Your task to perform on an android device: move a message to another label in the gmail app Image 0: 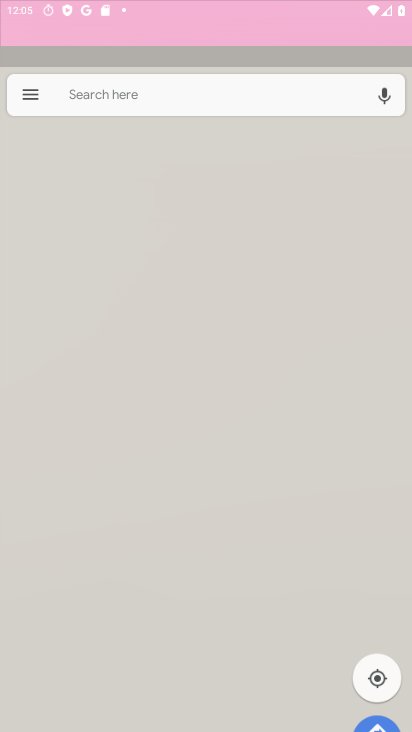
Step 0: click (317, 188)
Your task to perform on an android device: move a message to another label in the gmail app Image 1: 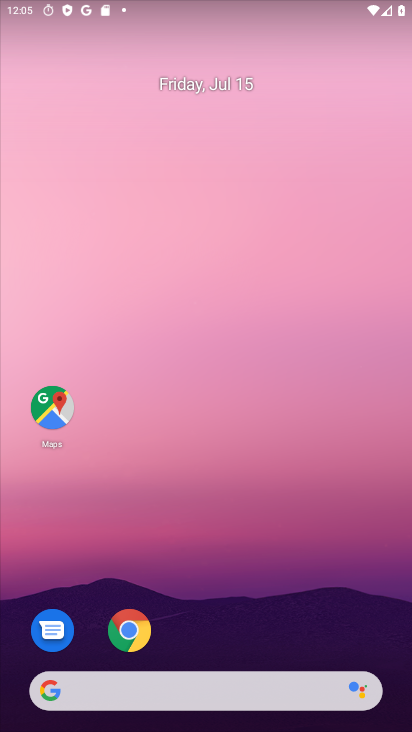
Step 1: drag from (208, 608) to (204, 179)
Your task to perform on an android device: move a message to another label in the gmail app Image 2: 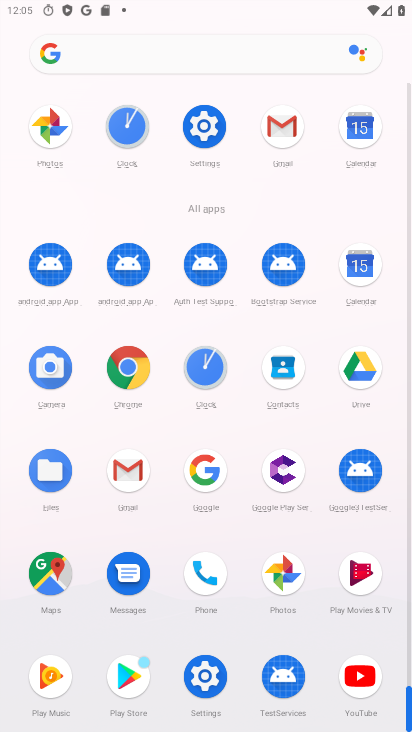
Step 2: click (109, 470)
Your task to perform on an android device: move a message to another label in the gmail app Image 3: 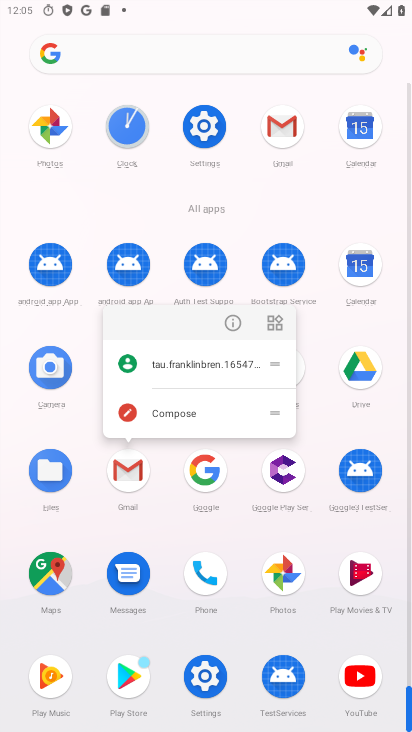
Step 3: click (246, 330)
Your task to perform on an android device: move a message to another label in the gmail app Image 4: 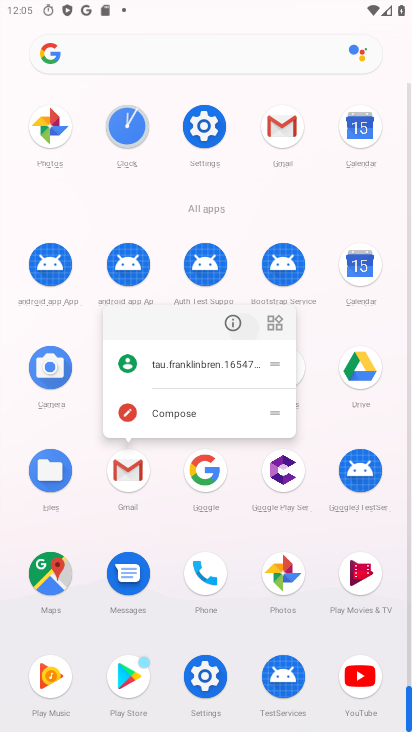
Step 4: click (238, 327)
Your task to perform on an android device: move a message to another label in the gmail app Image 5: 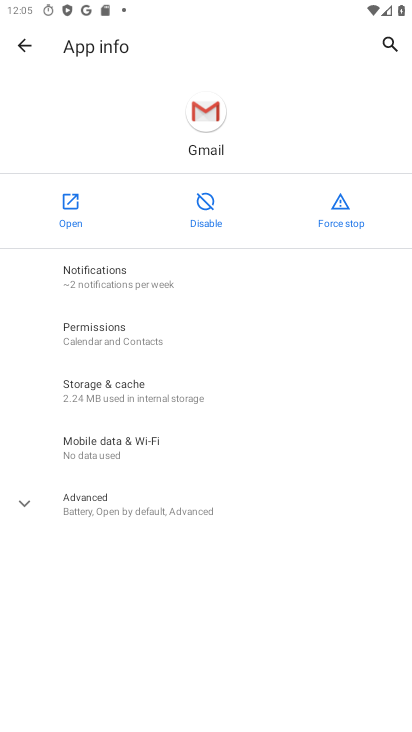
Step 5: click (56, 201)
Your task to perform on an android device: move a message to another label in the gmail app Image 6: 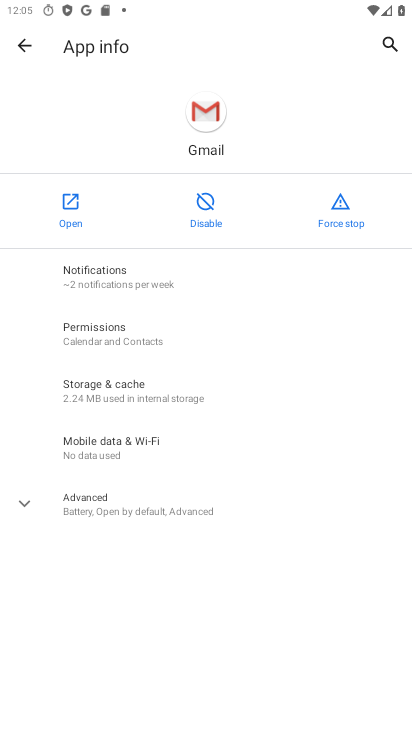
Step 6: click (57, 200)
Your task to perform on an android device: move a message to another label in the gmail app Image 7: 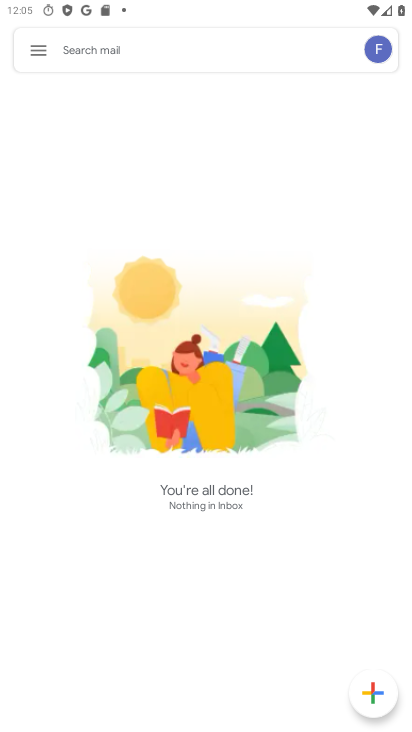
Step 7: drag from (230, 545) to (232, 345)
Your task to perform on an android device: move a message to another label in the gmail app Image 8: 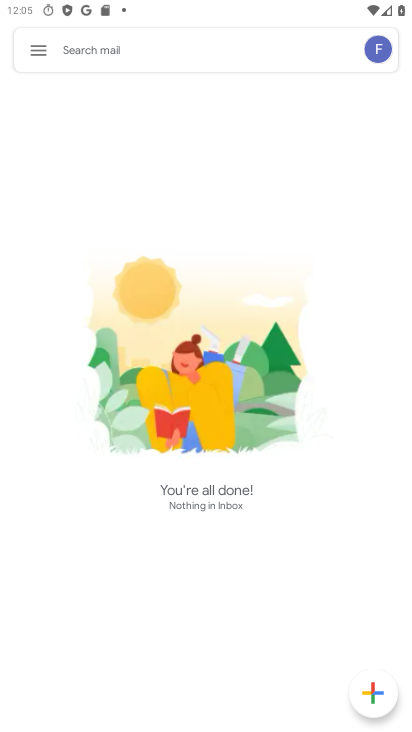
Step 8: click (43, 46)
Your task to perform on an android device: move a message to another label in the gmail app Image 9: 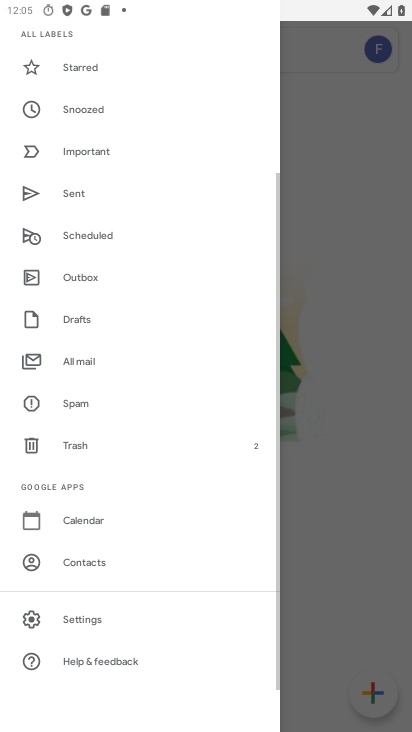
Step 9: click (365, 418)
Your task to perform on an android device: move a message to another label in the gmail app Image 10: 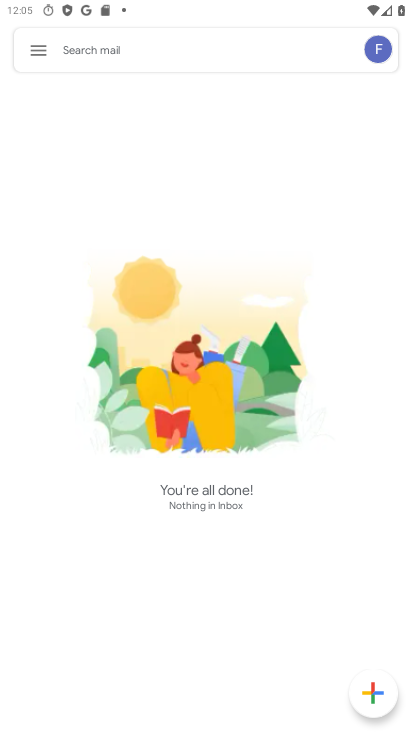
Step 10: task complete